Your task to perform on an android device: turn off notifications settings in the gmail app Image 0: 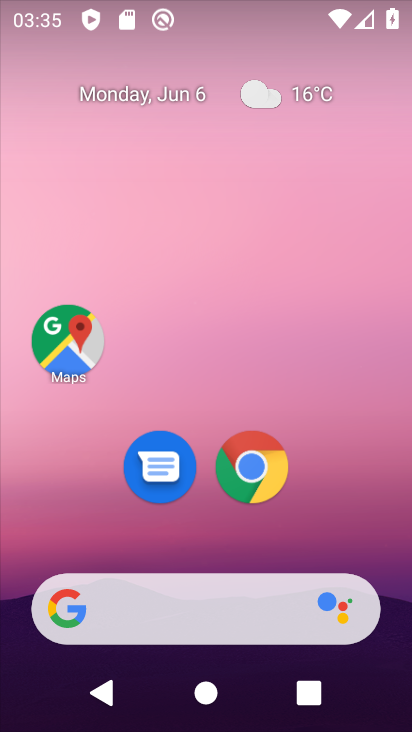
Step 0: drag from (217, 532) to (214, 0)
Your task to perform on an android device: turn off notifications settings in the gmail app Image 1: 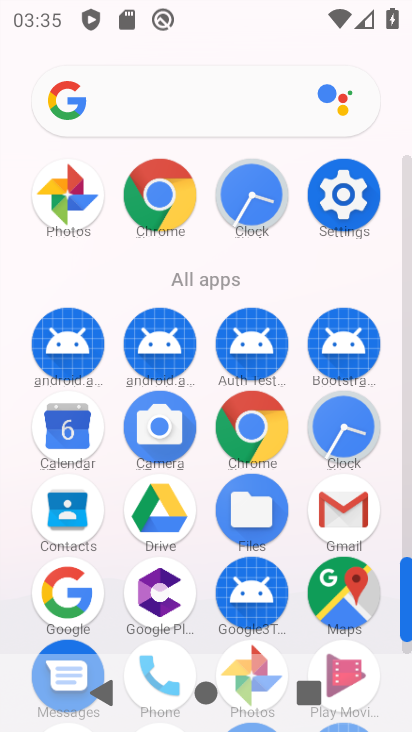
Step 1: click (344, 504)
Your task to perform on an android device: turn off notifications settings in the gmail app Image 2: 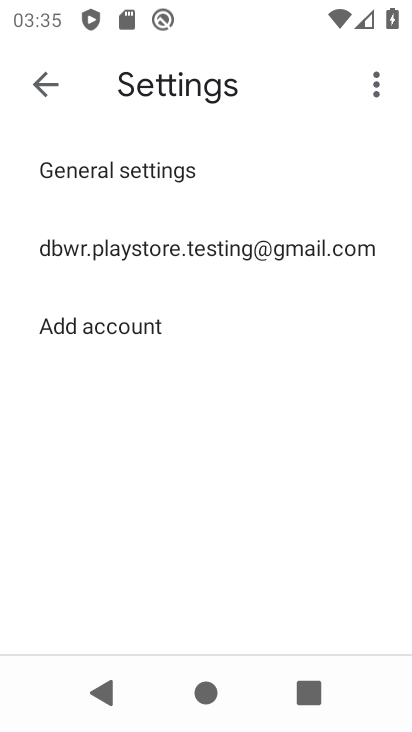
Step 2: click (191, 167)
Your task to perform on an android device: turn off notifications settings in the gmail app Image 3: 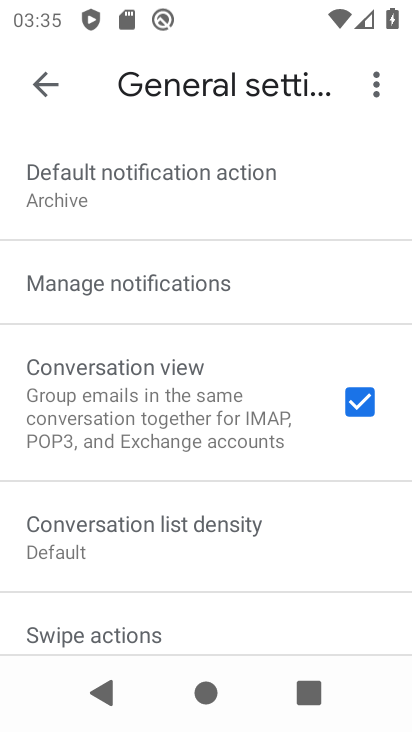
Step 3: click (262, 285)
Your task to perform on an android device: turn off notifications settings in the gmail app Image 4: 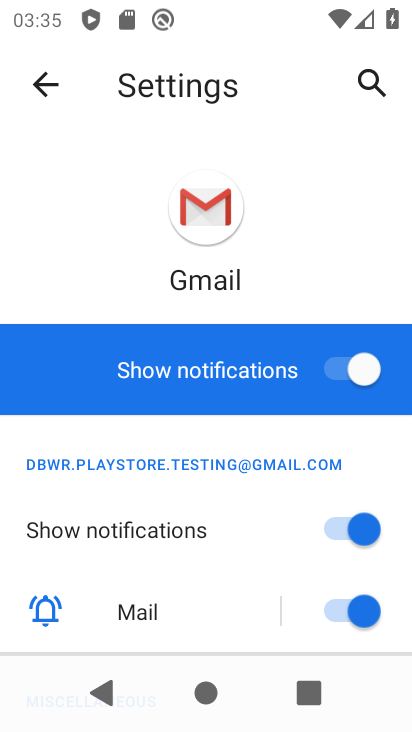
Step 4: click (347, 359)
Your task to perform on an android device: turn off notifications settings in the gmail app Image 5: 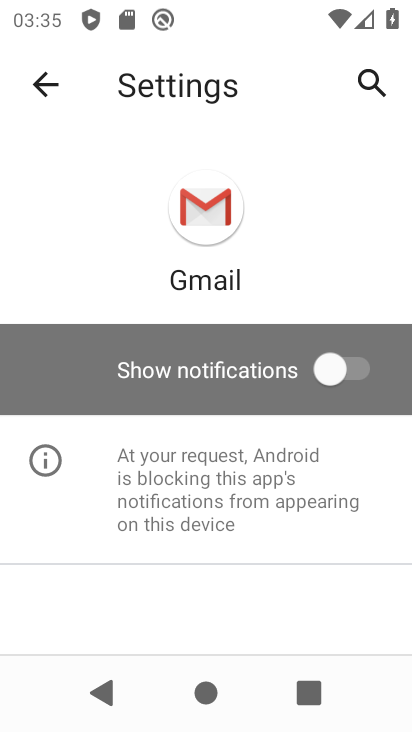
Step 5: task complete